Your task to perform on an android device: Open the phone app and click the voicemail tab. Image 0: 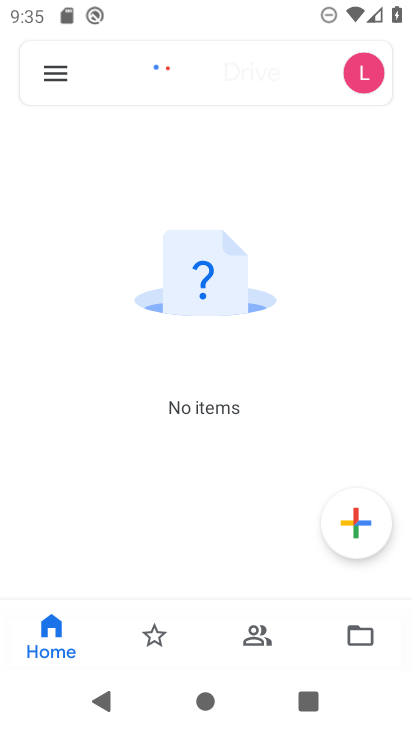
Step 0: press home button
Your task to perform on an android device: Open the phone app and click the voicemail tab. Image 1: 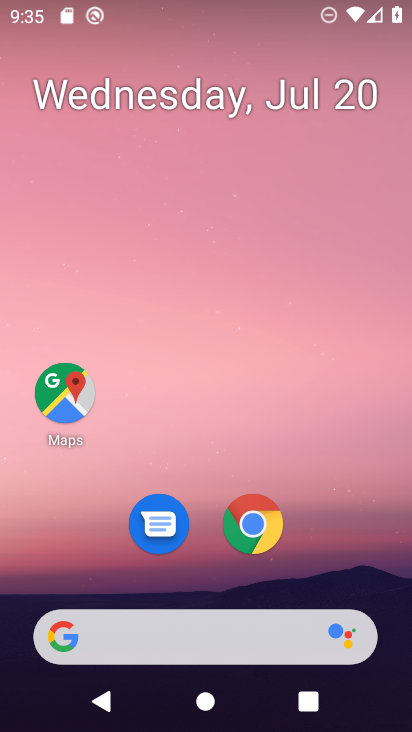
Step 1: drag from (181, 633) to (312, 91)
Your task to perform on an android device: Open the phone app and click the voicemail tab. Image 2: 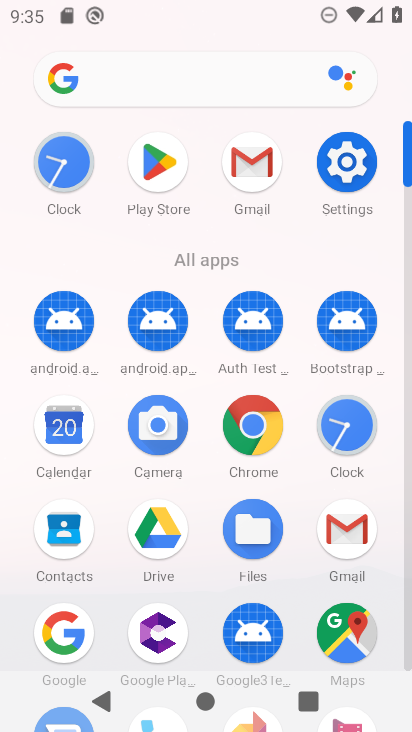
Step 2: drag from (199, 592) to (349, 132)
Your task to perform on an android device: Open the phone app and click the voicemail tab. Image 3: 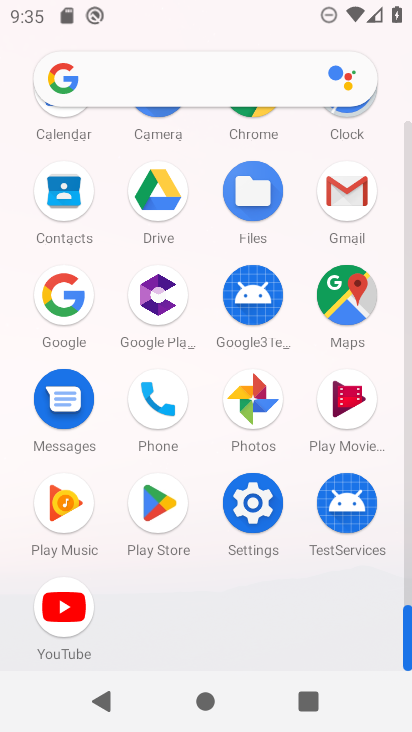
Step 3: click (165, 409)
Your task to perform on an android device: Open the phone app and click the voicemail tab. Image 4: 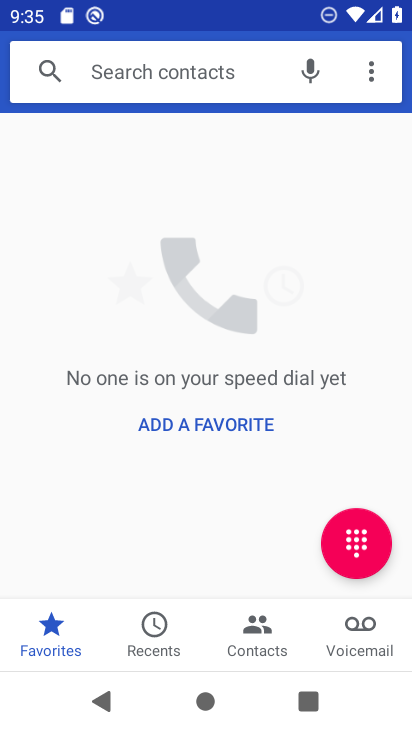
Step 4: click (341, 618)
Your task to perform on an android device: Open the phone app and click the voicemail tab. Image 5: 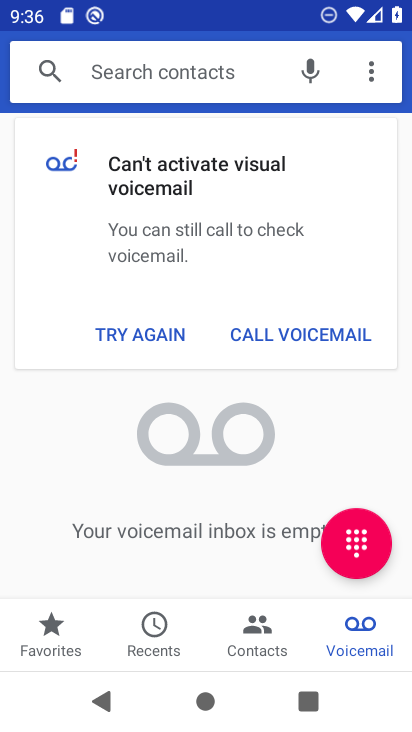
Step 5: task complete